Your task to perform on an android device: Open calendar and show me the first week of next month Image 0: 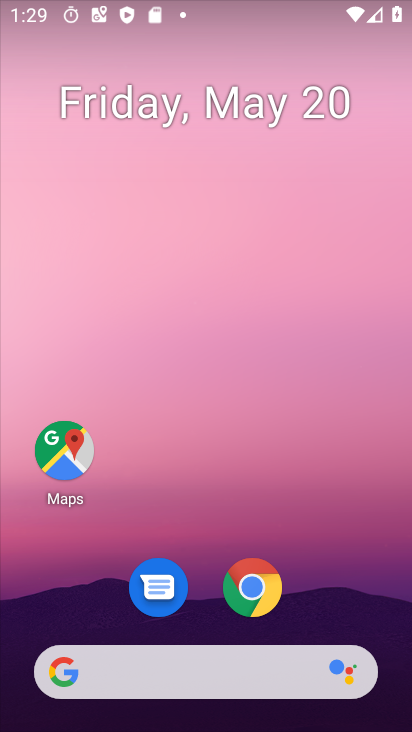
Step 0: drag from (377, 555) to (349, 100)
Your task to perform on an android device: Open calendar and show me the first week of next month Image 1: 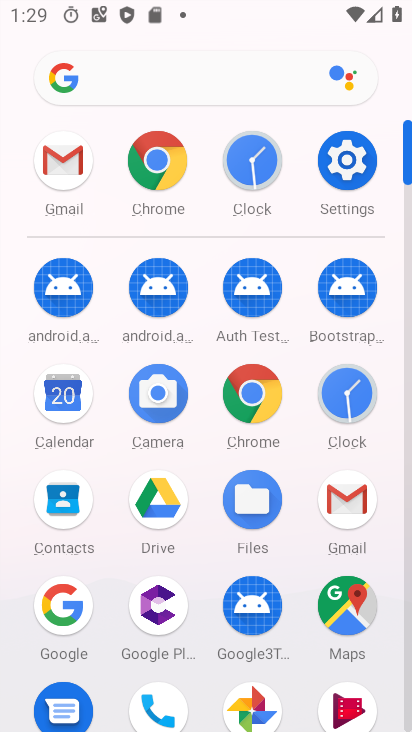
Step 1: click (55, 402)
Your task to perform on an android device: Open calendar and show me the first week of next month Image 2: 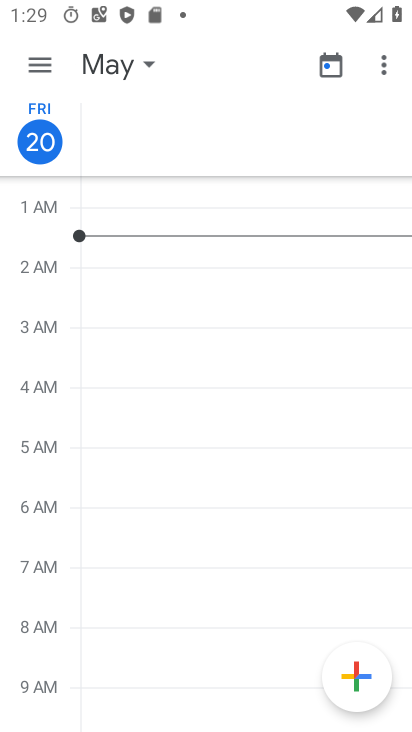
Step 2: click (108, 75)
Your task to perform on an android device: Open calendar and show me the first week of next month Image 3: 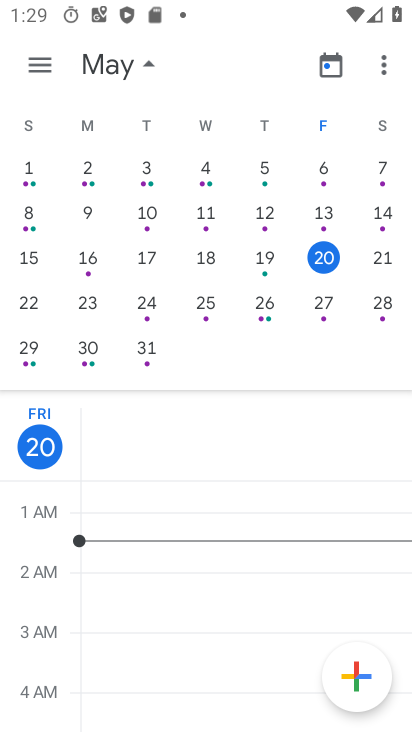
Step 3: drag from (347, 243) to (36, 243)
Your task to perform on an android device: Open calendar and show me the first week of next month Image 4: 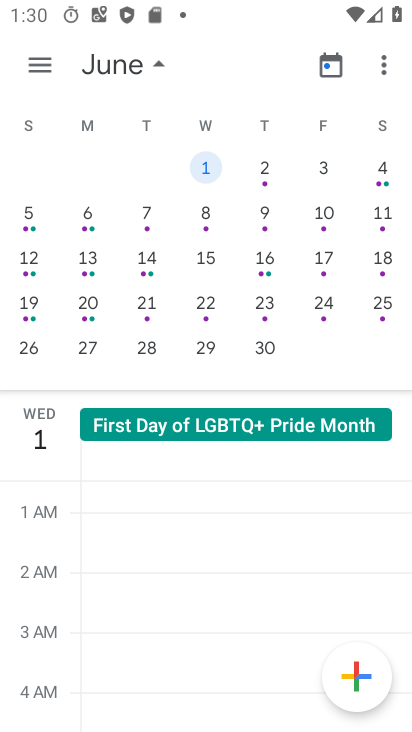
Step 4: click (319, 174)
Your task to perform on an android device: Open calendar and show me the first week of next month Image 5: 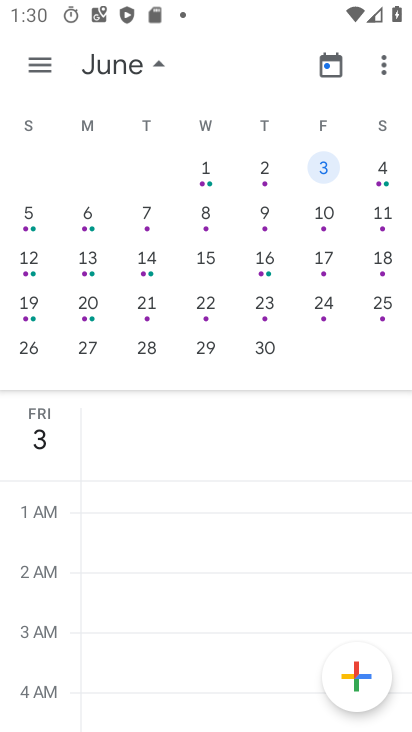
Step 5: click (39, 48)
Your task to perform on an android device: Open calendar and show me the first week of next month Image 6: 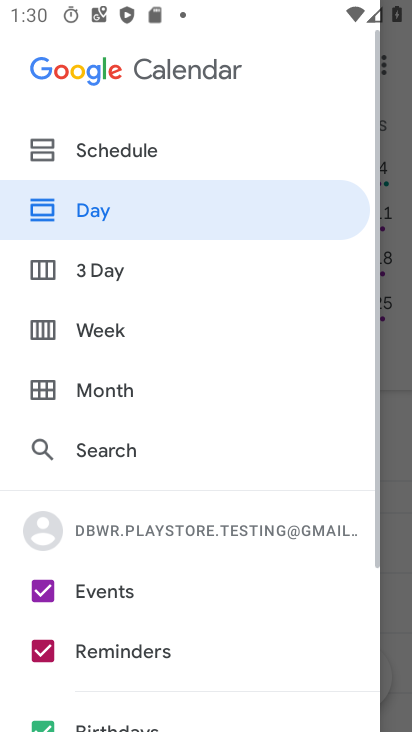
Step 6: click (121, 274)
Your task to perform on an android device: Open calendar and show me the first week of next month Image 7: 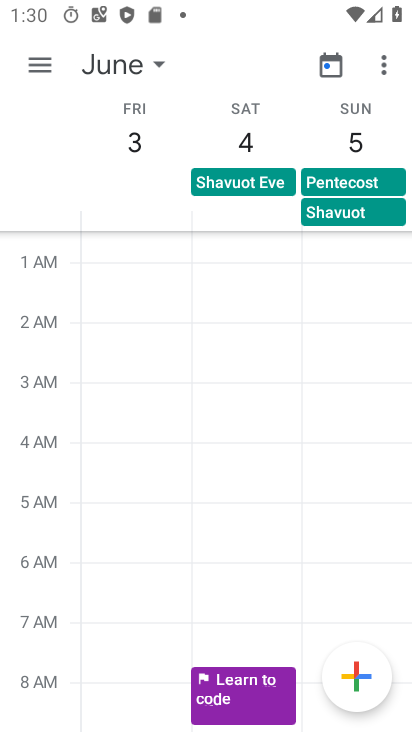
Step 7: click (46, 72)
Your task to perform on an android device: Open calendar and show me the first week of next month Image 8: 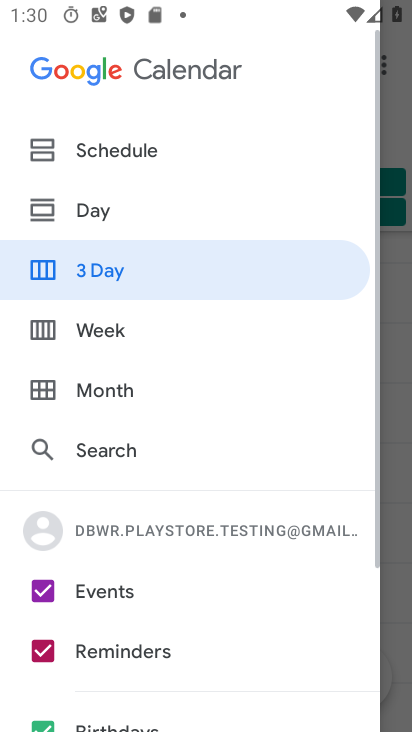
Step 8: click (120, 322)
Your task to perform on an android device: Open calendar and show me the first week of next month Image 9: 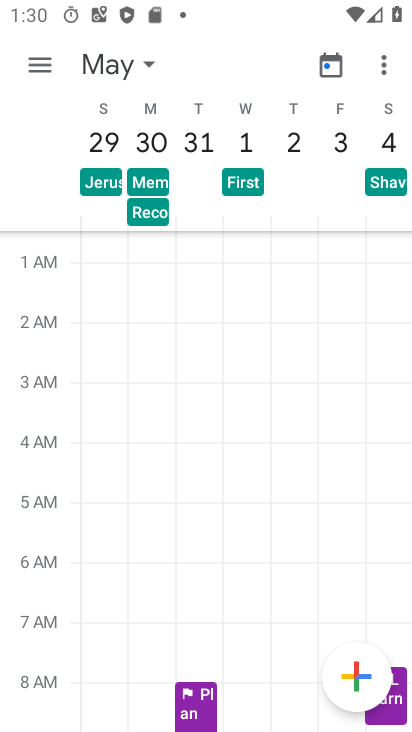
Step 9: task complete